Your task to perform on an android device: Open sound settings Image 0: 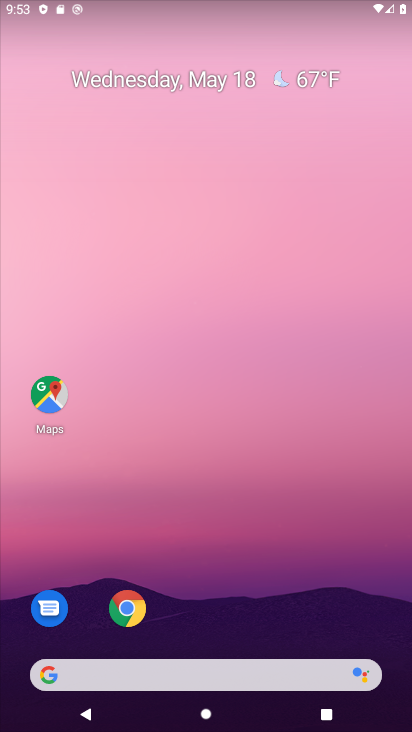
Step 0: click (210, 151)
Your task to perform on an android device: Open sound settings Image 1: 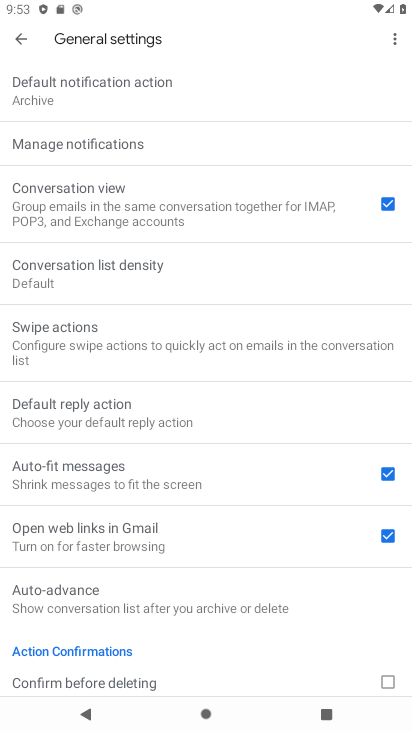
Step 1: press home button
Your task to perform on an android device: Open sound settings Image 2: 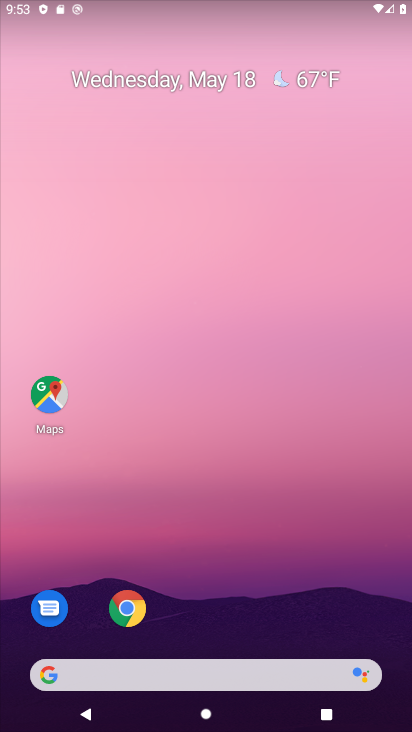
Step 2: drag from (196, 560) to (299, 41)
Your task to perform on an android device: Open sound settings Image 3: 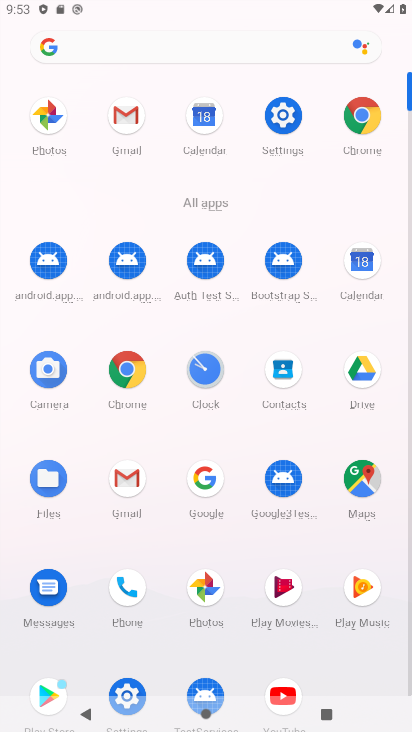
Step 3: click (286, 121)
Your task to perform on an android device: Open sound settings Image 4: 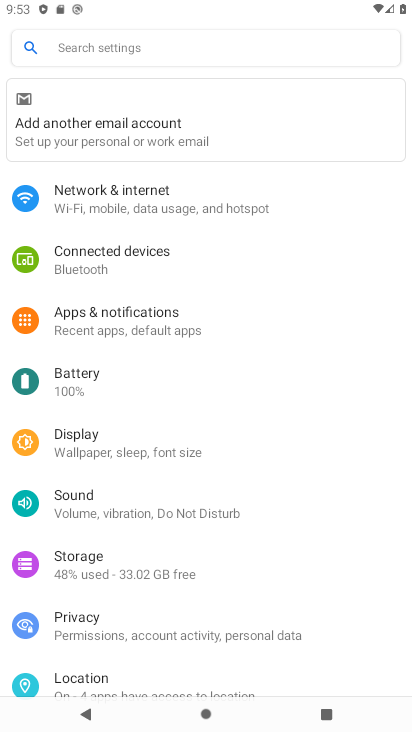
Step 4: click (96, 507)
Your task to perform on an android device: Open sound settings Image 5: 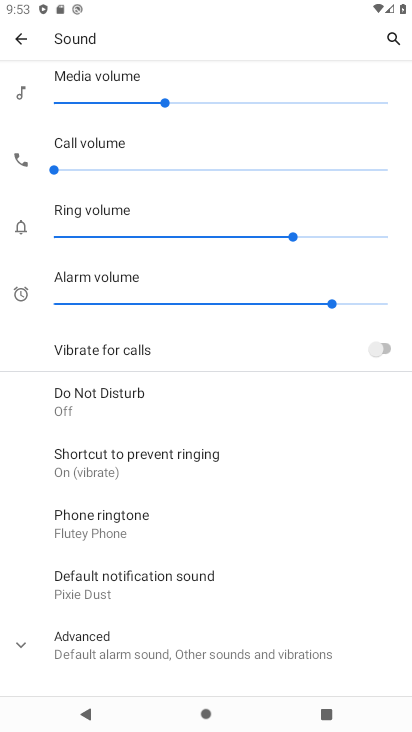
Step 5: task complete